Your task to perform on an android device: toggle show notifications on the lock screen Image 0: 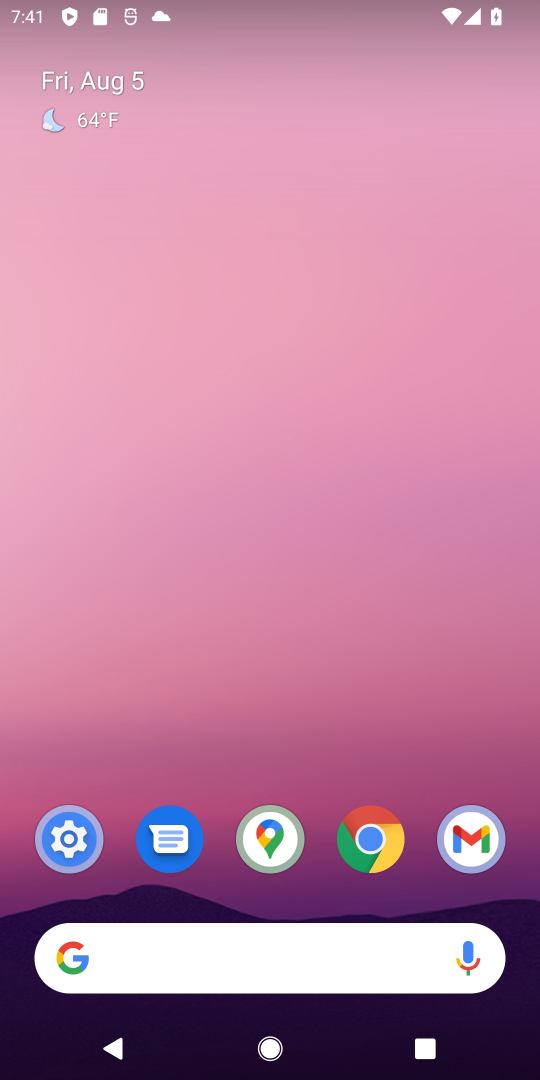
Step 0: drag from (287, 541) to (293, 67)
Your task to perform on an android device: toggle show notifications on the lock screen Image 1: 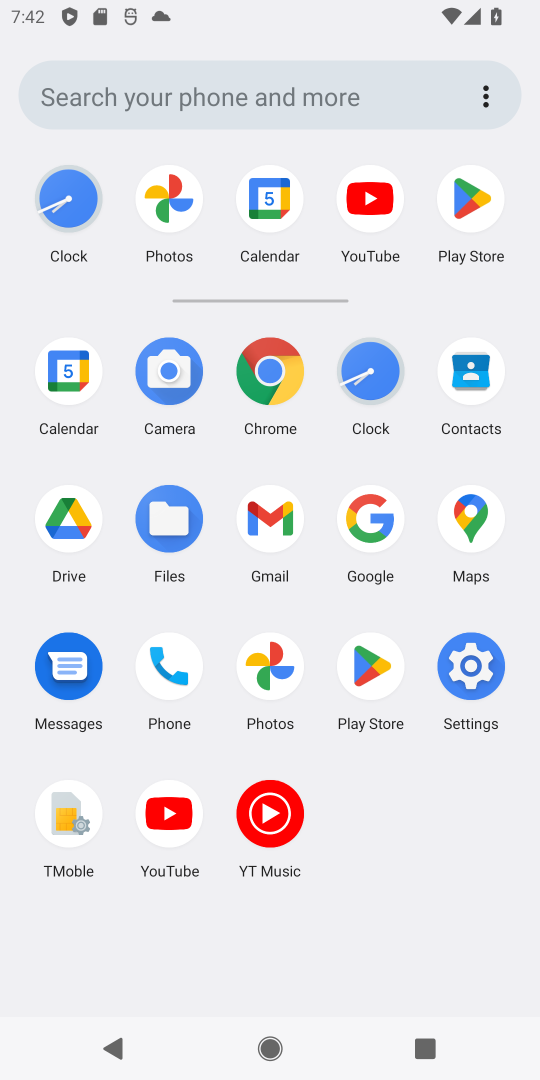
Step 1: click (451, 671)
Your task to perform on an android device: toggle show notifications on the lock screen Image 2: 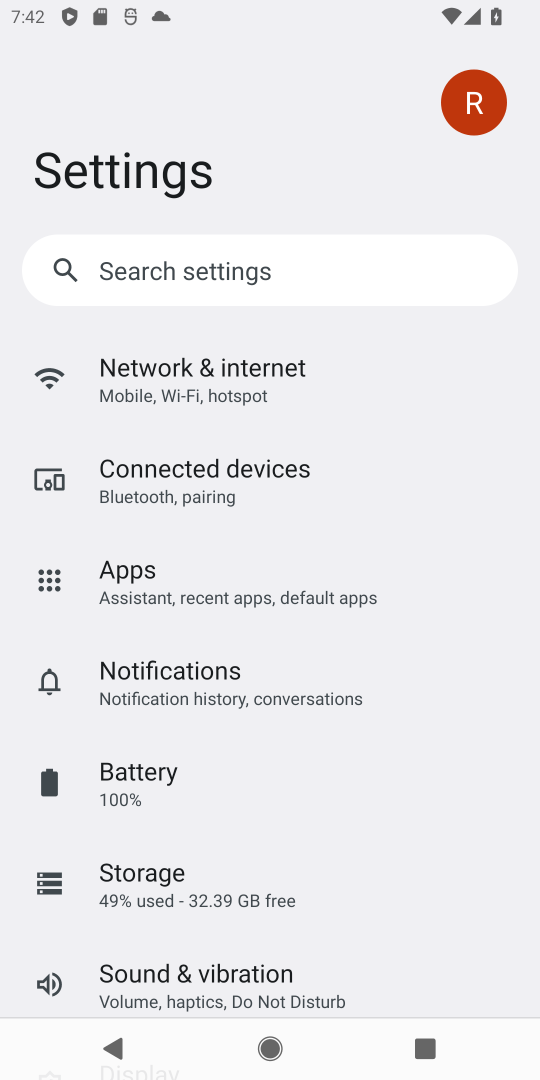
Step 2: click (181, 664)
Your task to perform on an android device: toggle show notifications on the lock screen Image 3: 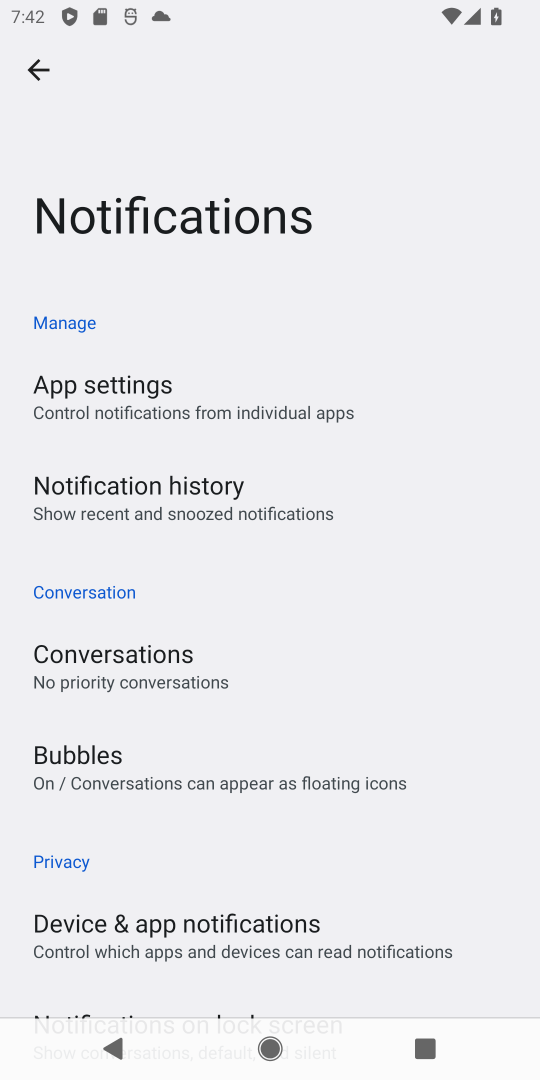
Step 3: drag from (137, 824) to (101, 416)
Your task to perform on an android device: toggle show notifications on the lock screen Image 4: 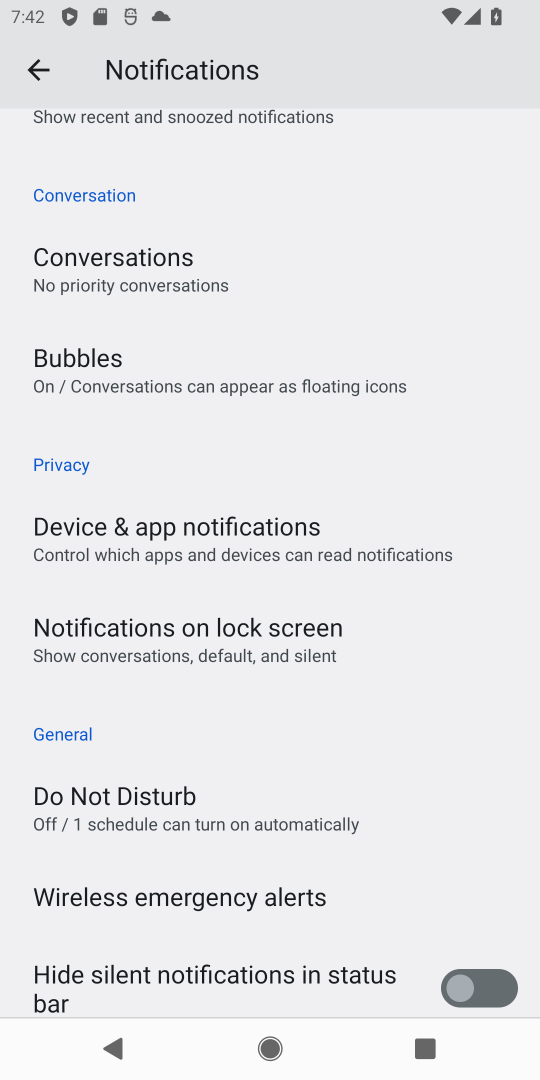
Step 4: click (117, 624)
Your task to perform on an android device: toggle show notifications on the lock screen Image 5: 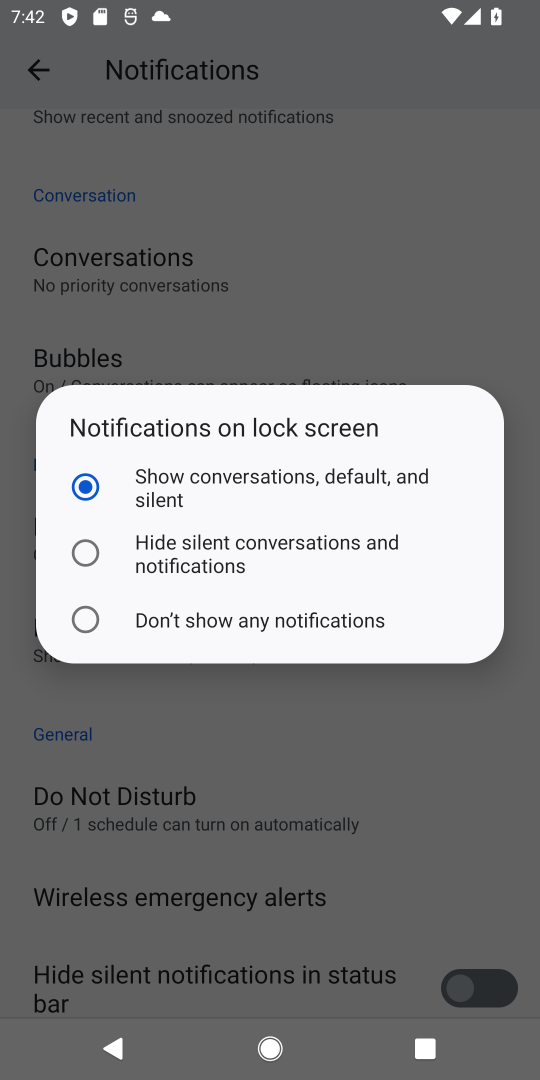
Step 5: click (92, 547)
Your task to perform on an android device: toggle show notifications on the lock screen Image 6: 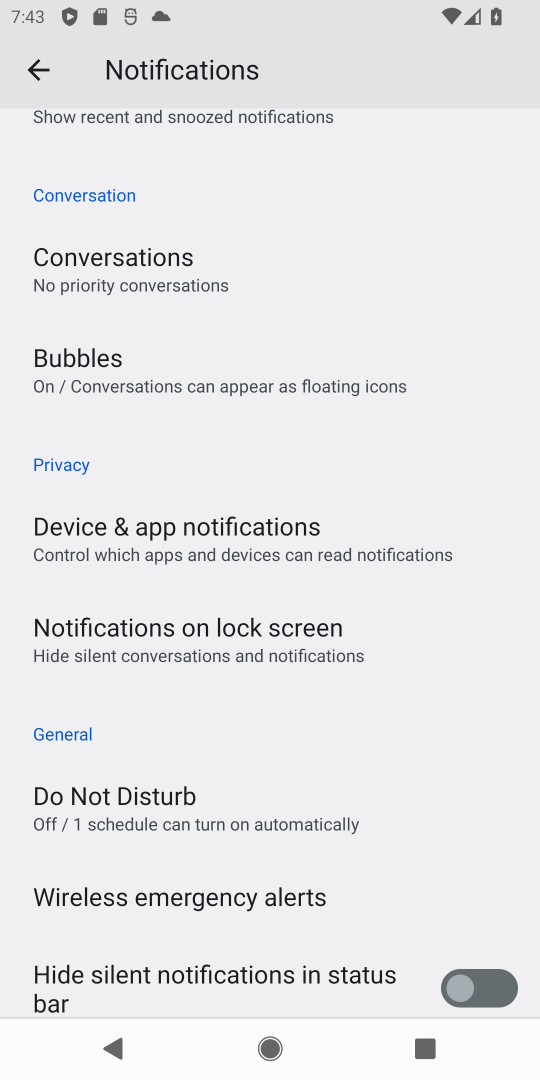
Step 6: task complete